Your task to perform on an android device: see creations saved in the google photos Image 0: 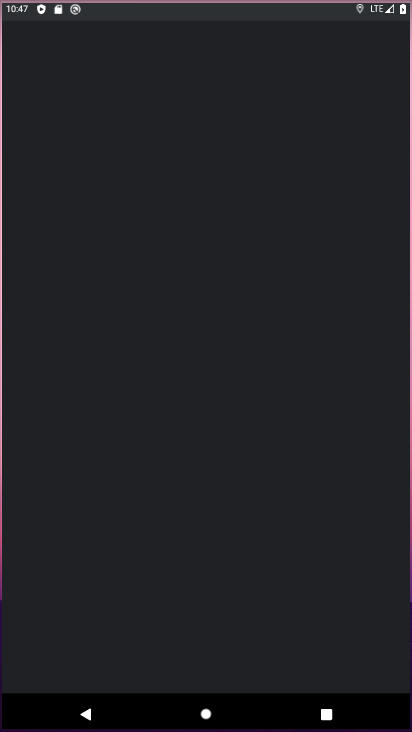
Step 0: drag from (247, 632) to (198, 135)
Your task to perform on an android device: see creations saved in the google photos Image 1: 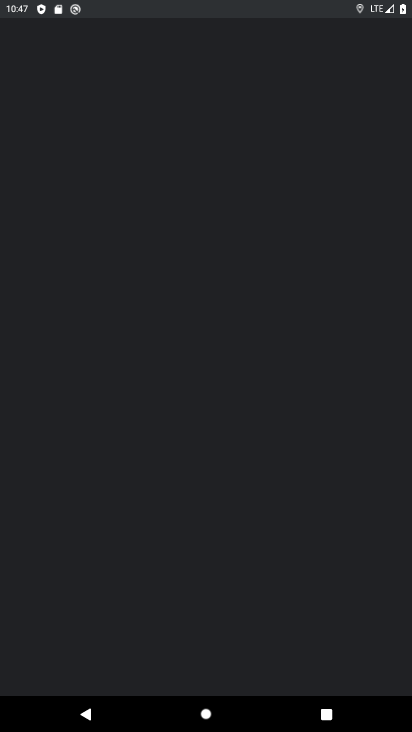
Step 1: press home button
Your task to perform on an android device: see creations saved in the google photos Image 2: 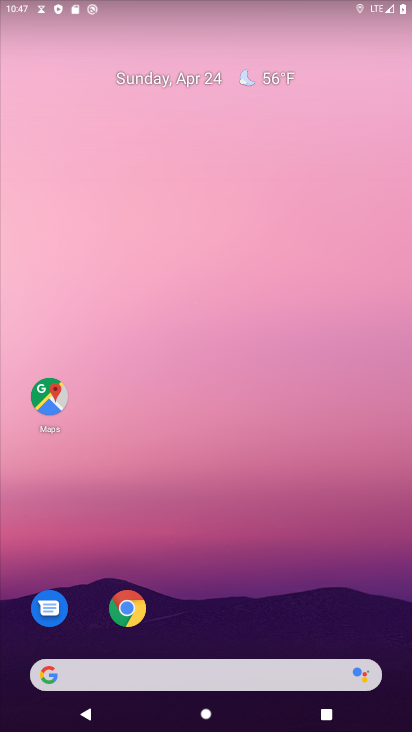
Step 2: drag from (210, 640) to (150, 30)
Your task to perform on an android device: see creations saved in the google photos Image 3: 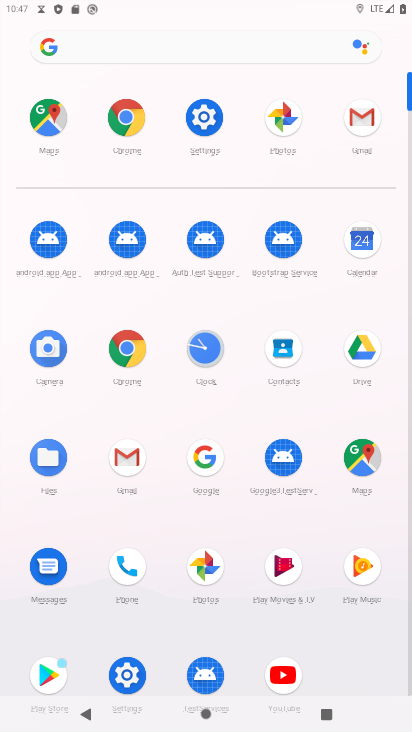
Step 3: click (205, 577)
Your task to perform on an android device: see creations saved in the google photos Image 4: 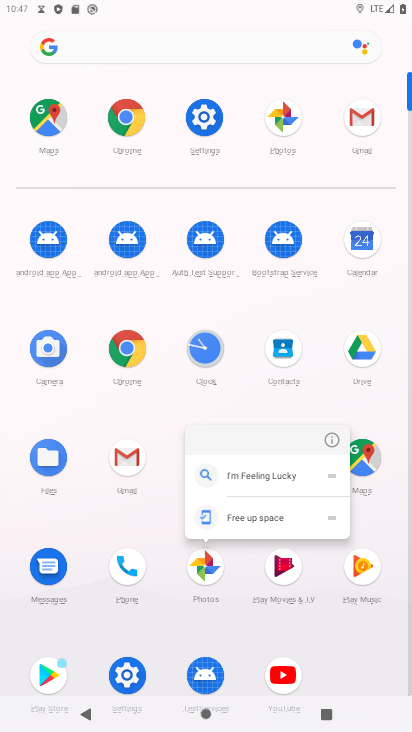
Step 4: click (194, 576)
Your task to perform on an android device: see creations saved in the google photos Image 5: 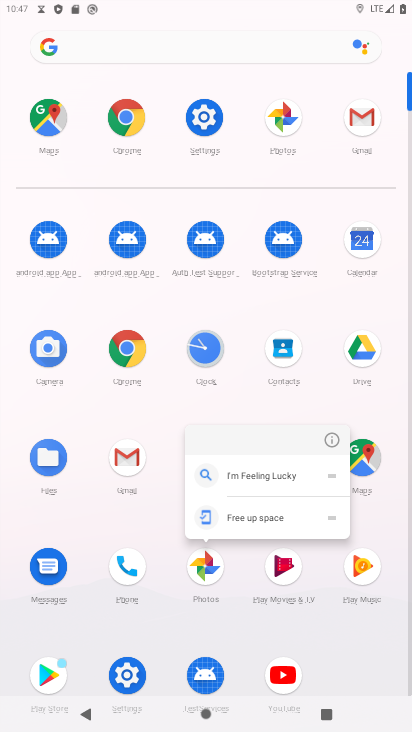
Step 5: click (202, 570)
Your task to perform on an android device: see creations saved in the google photos Image 6: 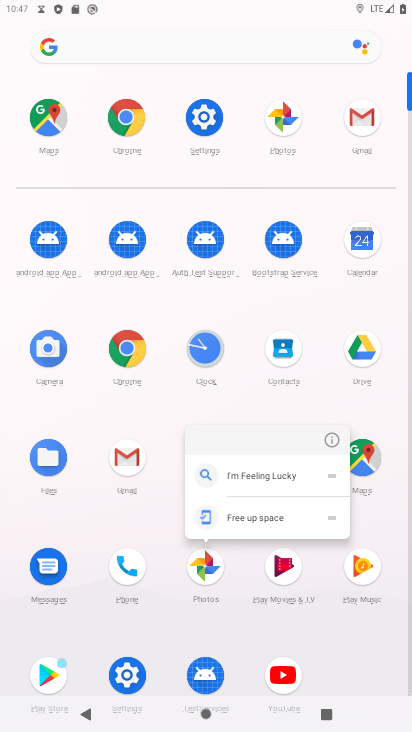
Step 6: click (208, 564)
Your task to perform on an android device: see creations saved in the google photos Image 7: 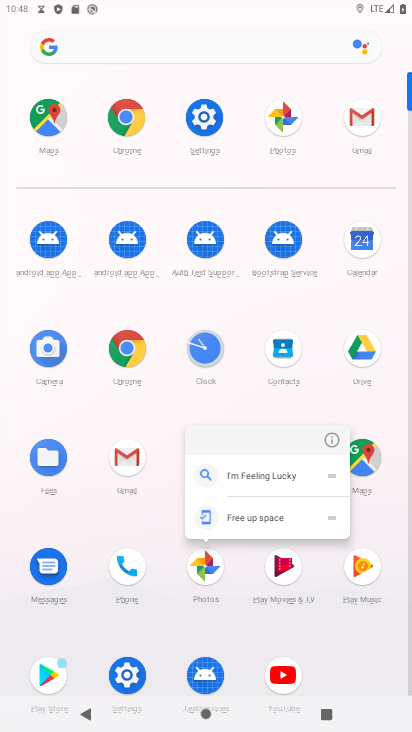
Step 7: click (206, 564)
Your task to perform on an android device: see creations saved in the google photos Image 8: 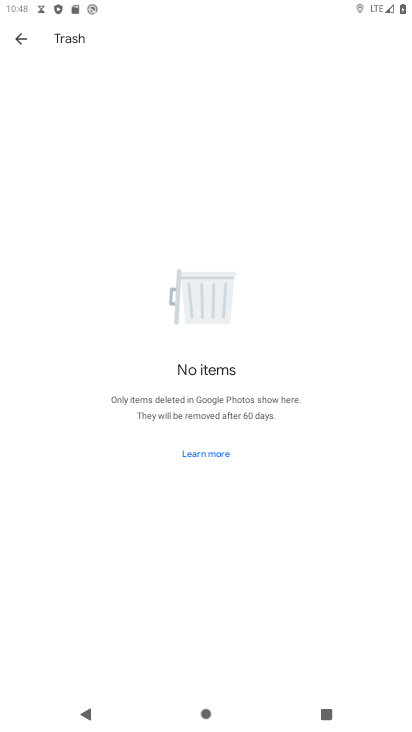
Step 8: click (18, 45)
Your task to perform on an android device: see creations saved in the google photos Image 9: 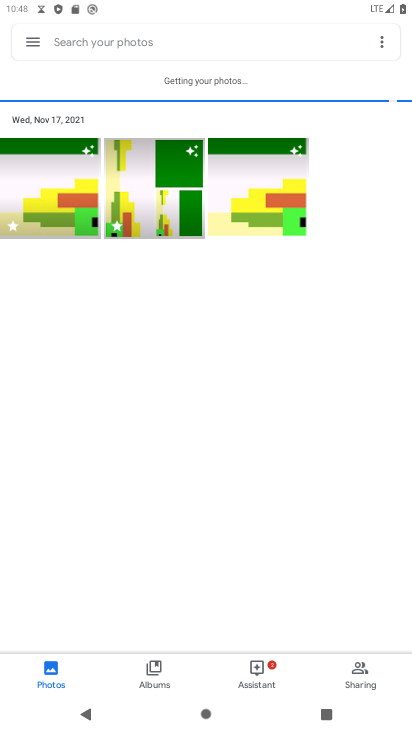
Step 9: click (261, 52)
Your task to perform on an android device: see creations saved in the google photos Image 10: 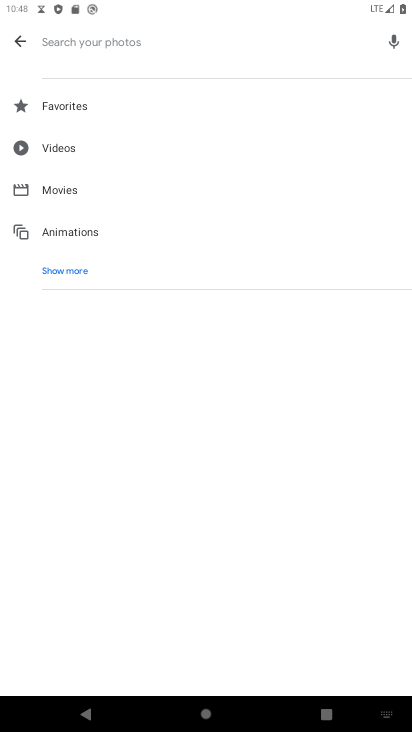
Step 10: click (62, 265)
Your task to perform on an android device: see creations saved in the google photos Image 11: 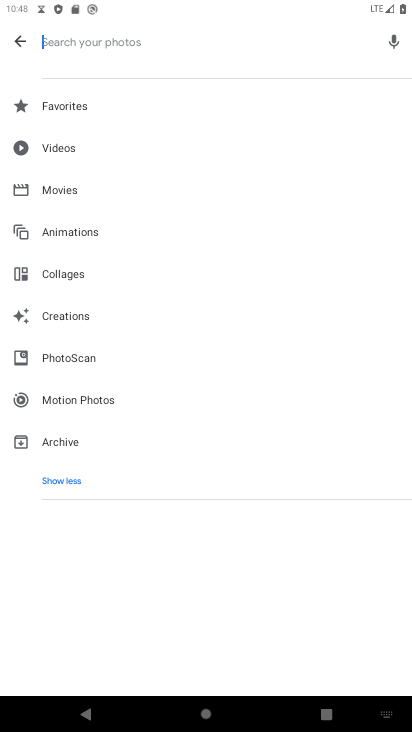
Step 11: click (92, 314)
Your task to perform on an android device: see creations saved in the google photos Image 12: 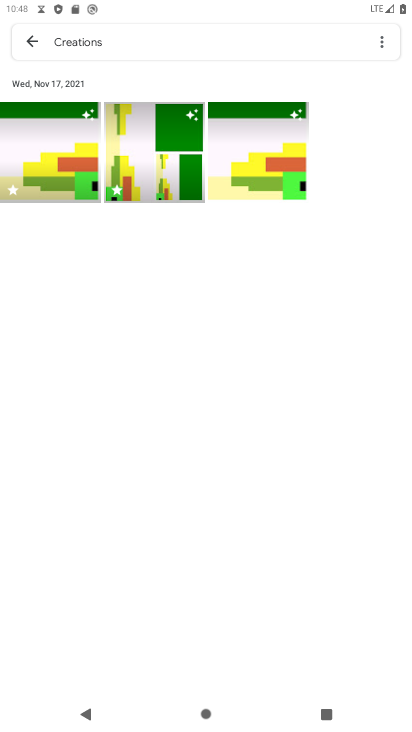
Step 12: task complete